Your task to perform on an android device: Open accessibility settings Image 0: 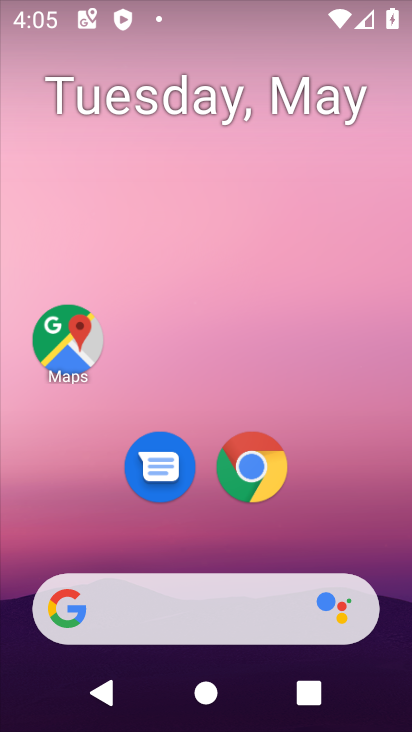
Step 0: drag from (161, 596) to (146, 6)
Your task to perform on an android device: Open accessibility settings Image 1: 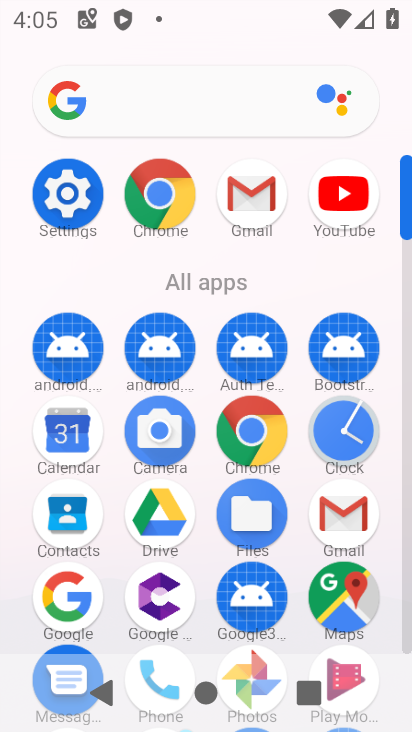
Step 1: click (68, 202)
Your task to perform on an android device: Open accessibility settings Image 2: 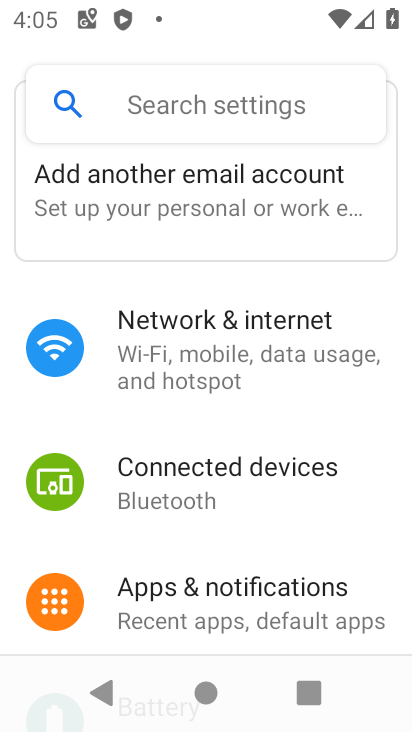
Step 2: drag from (312, 620) to (336, 104)
Your task to perform on an android device: Open accessibility settings Image 3: 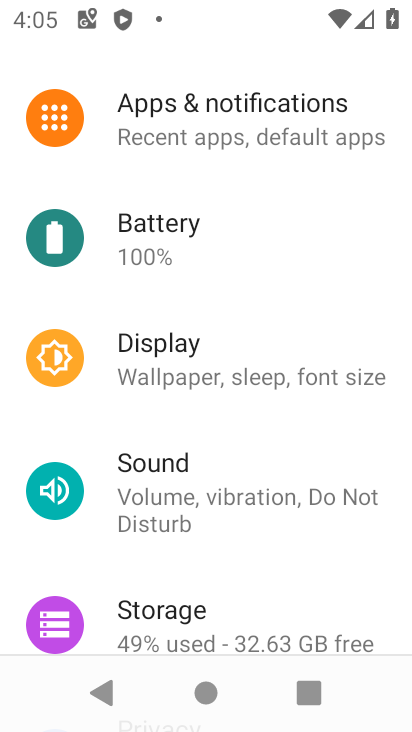
Step 3: drag from (260, 567) to (278, 122)
Your task to perform on an android device: Open accessibility settings Image 4: 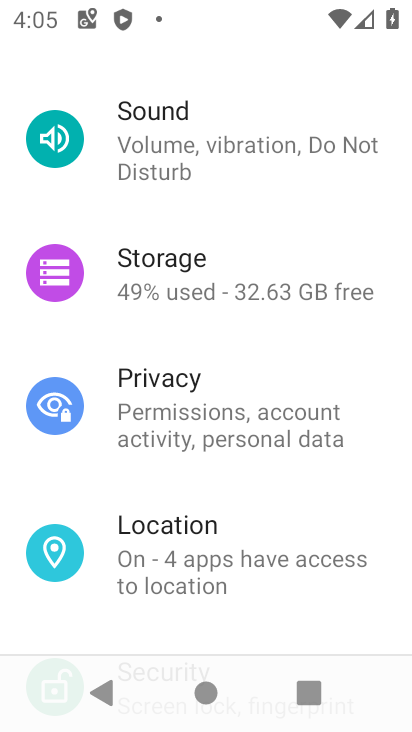
Step 4: drag from (206, 638) to (277, 121)
Your task to perform on an android device: Open accessibility settings Image 5: 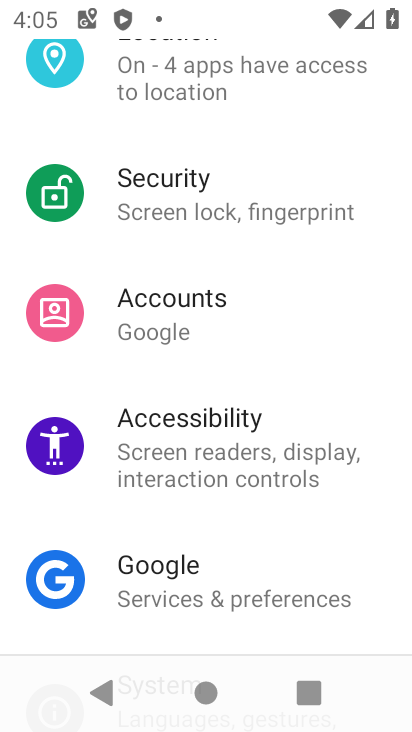
Step 5: click (209, 445)
Your task to perform on an android device: Open accessibility settings Image 6: 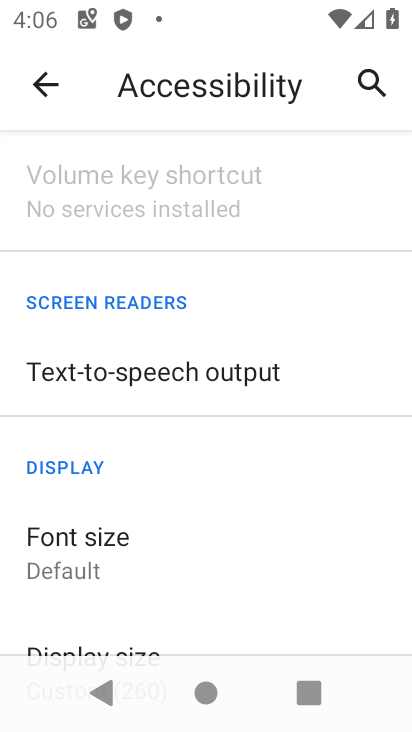
Step 6: task complete